Your task to perform on an android device: find snoozed emails in the gmail app Image 0: 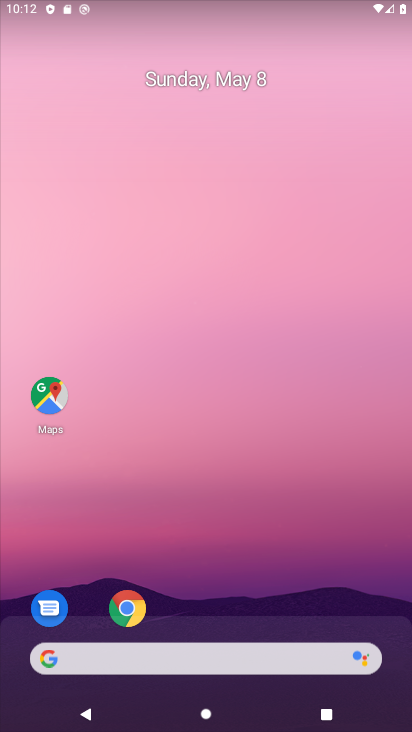
Step 0: drag from (120, 544) to (135, 282)
Your task to perform on an android device: find snoozed emails in the gmail app Image 1: 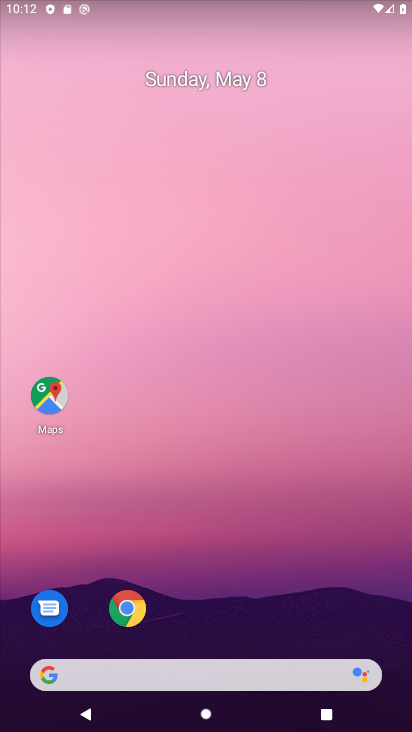
Step 1: drag from (206, 619) to (221, 252)
Your task to perform on an android device: find snoozed emails in the gmail app Image 2: 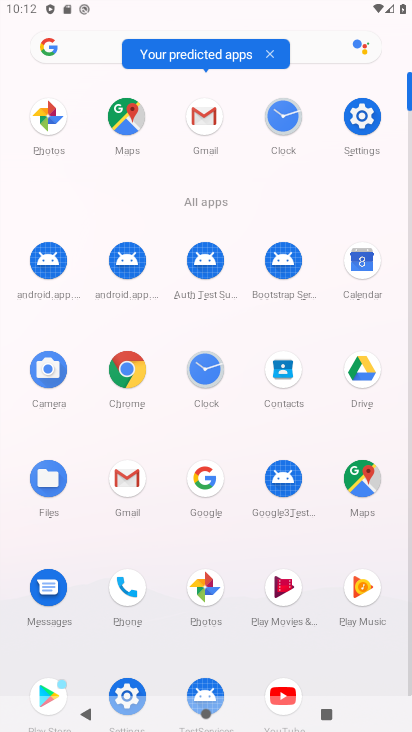
Step 2: click (213, 131)
Your task to perform on an android device: find snoozed emails in the gmail app Image 3: 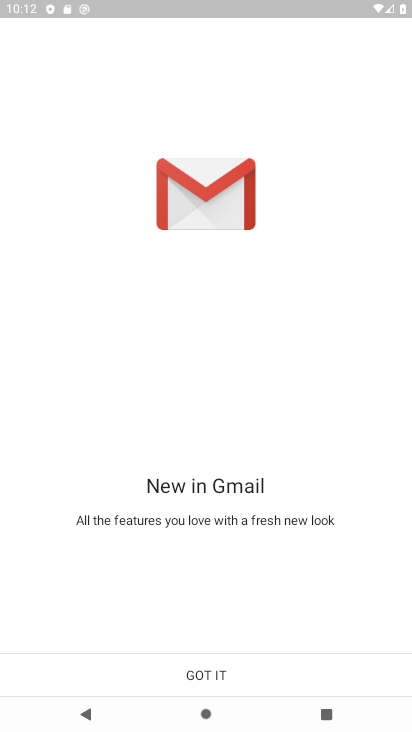
Step 3: click (196, 685)
Your task to perform on an android device: find snoozed emails in the gmail app Image 4: 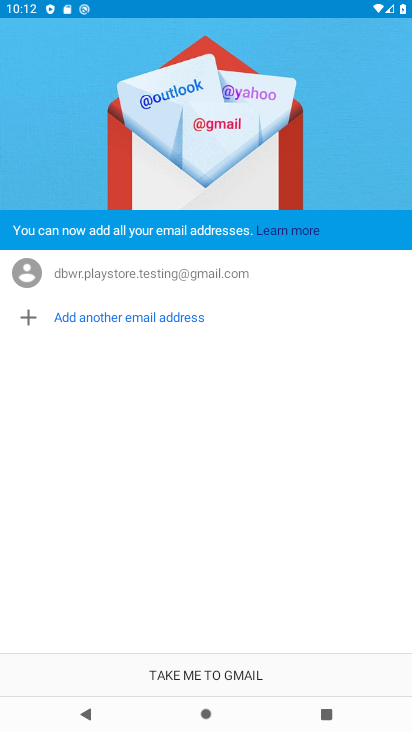
Step 4: click (216, 667)
Your task to perform on an android device: find snoozed emails in the gmail app Image 5: 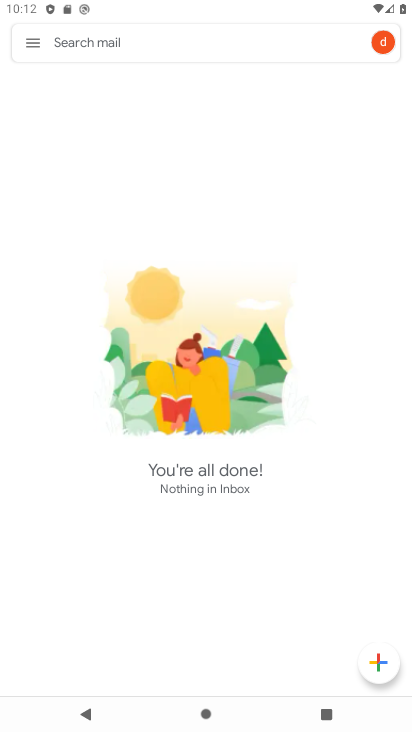
Step 5: click (36, 46)
Your task to perform on an android device: find snoozed emails in the gmail app Image 6: 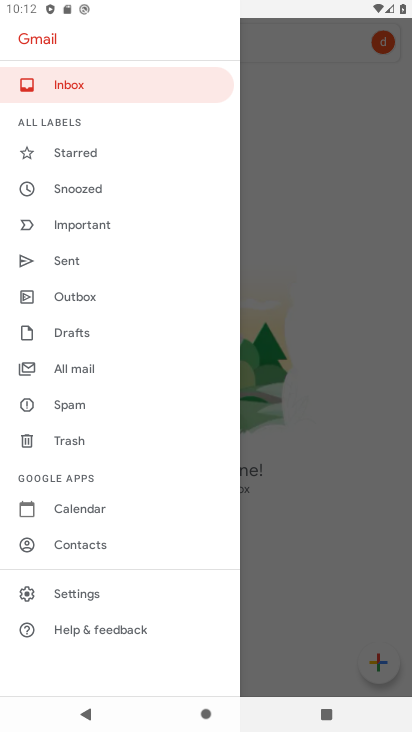
Step 6: click (79, 189)
Your task to perform on an android device: find snoozed emails in the gmail app Image 7: 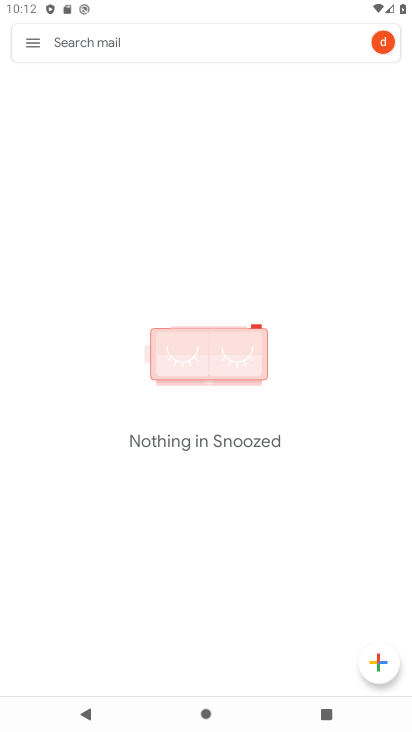
Step 7: task complete